Your task to perform on an android device: Show me popular games on the Play Store Image 0: 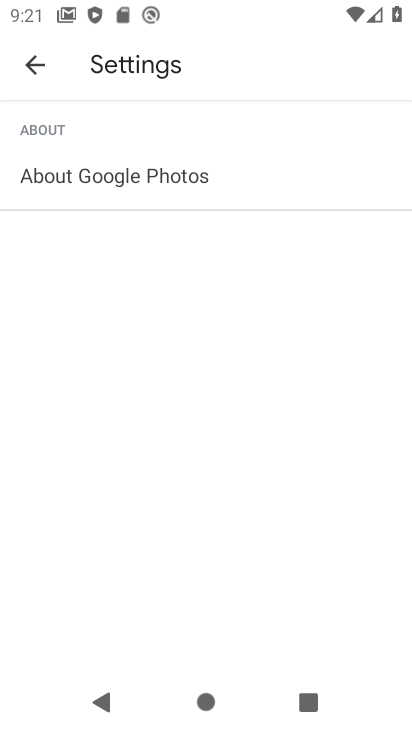
Step 0: press back button
Your task to perform on an android device: Show me popular games on the Play Store Image 1: 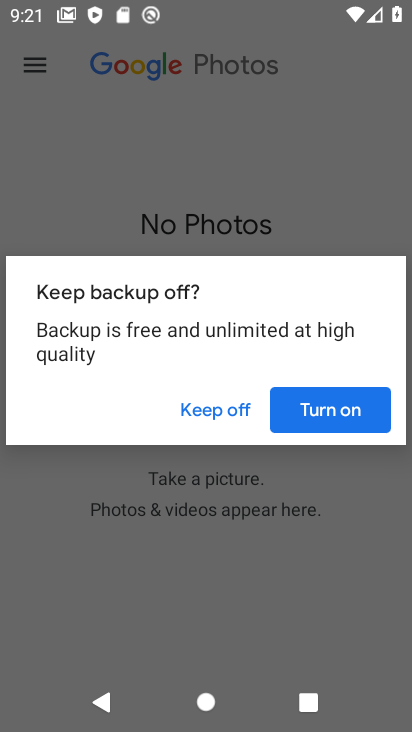
Step 1: press home button
Your task to perform on an android device: Show me popular games on the Play Store Image 2: 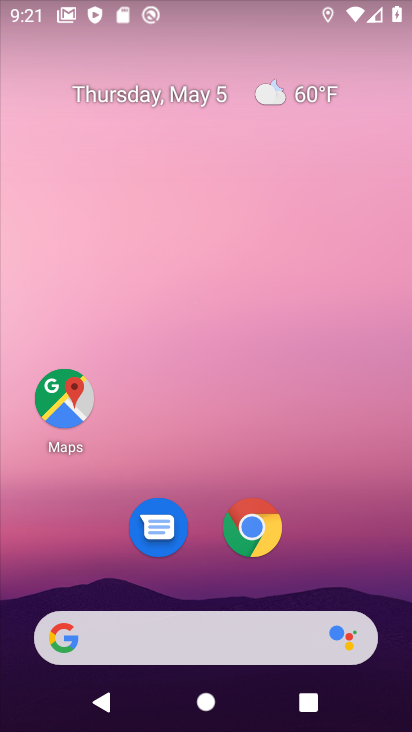
Step 2: drag from (62, 601) to (228, 61)
Your task to perform on an android device: Show me popular games on the Play Store Image 3: 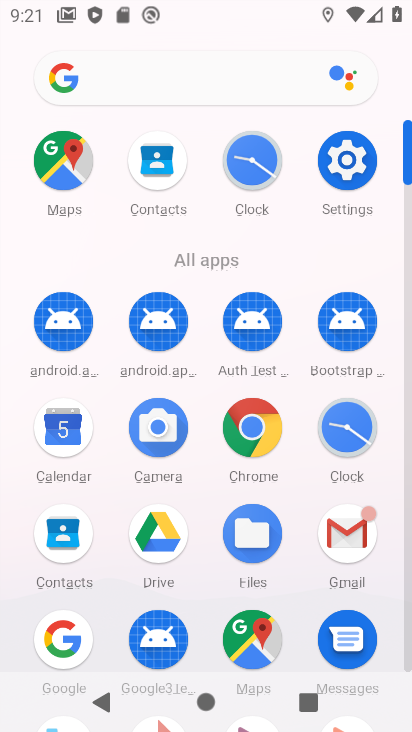
Step 3: drag from (132, 654) to (234, 280)
Your task to perform on an android device: Show me popular games on the Play Store Image 4: 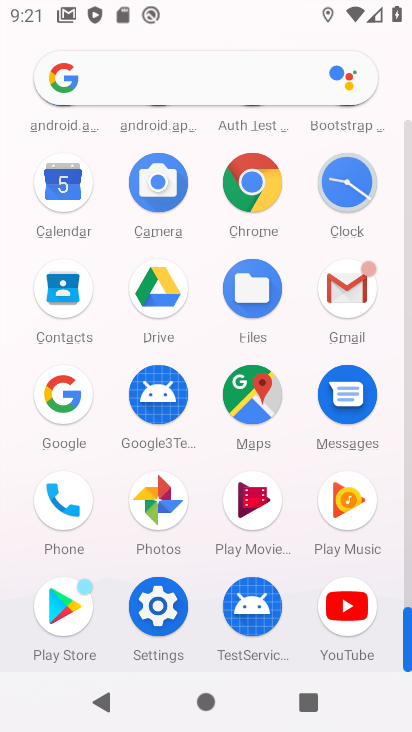
Step 4: click (60, 623)
Your task to perform on an android device: Show me popular games on the Play Store Image 5: 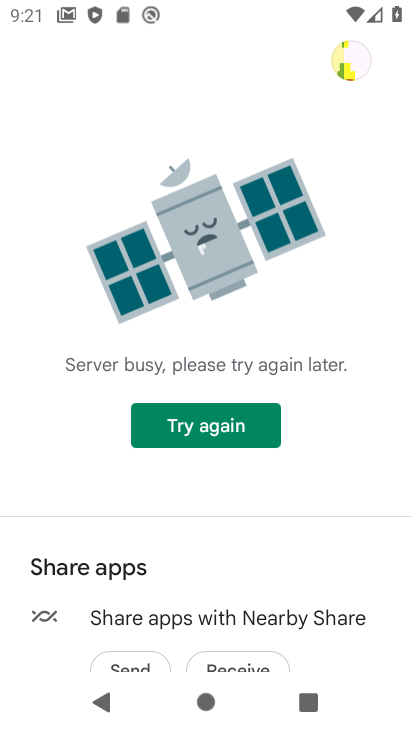
Step 5: click (224, 427)
Your task to perform on an android device: Show me popular games on the Play Store Image 6: 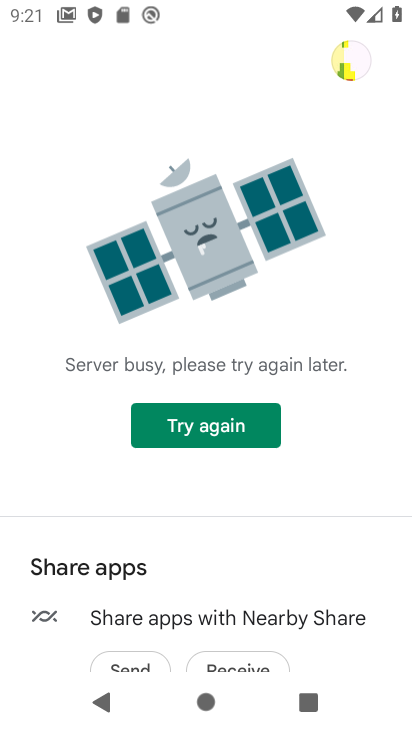
Step 6: task complete